Your task to perform on an android device: Open my contact list Image 0: 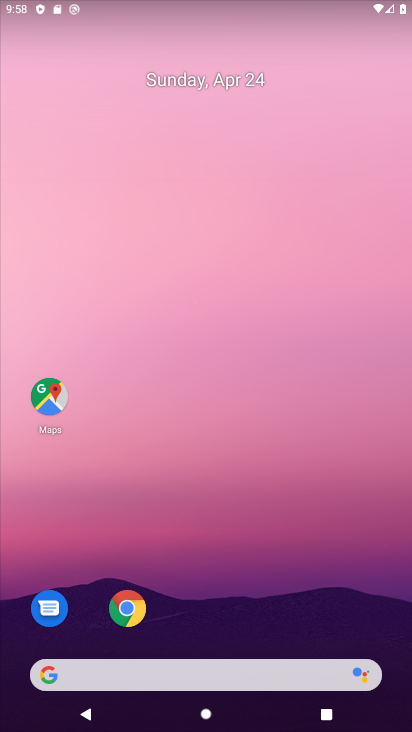
Step 0: drag from (291, 588) to (237, 25)
Your task to perform on an android device: Open my contact list Image 1: 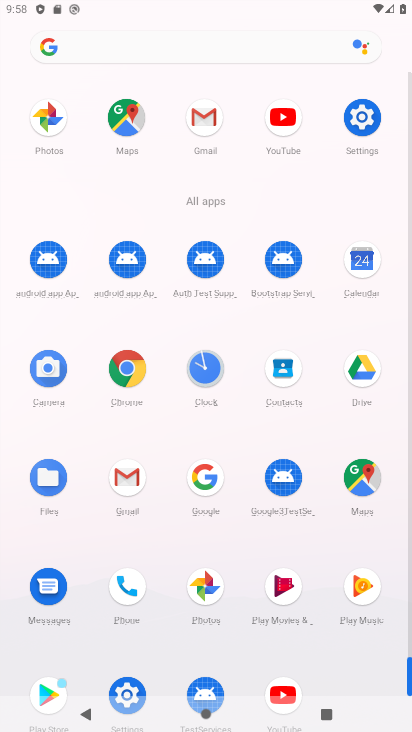
Step 1: drag from (16, 649) to (5, 328)
Your task to perform on an android device: Open my contact list Image 2: 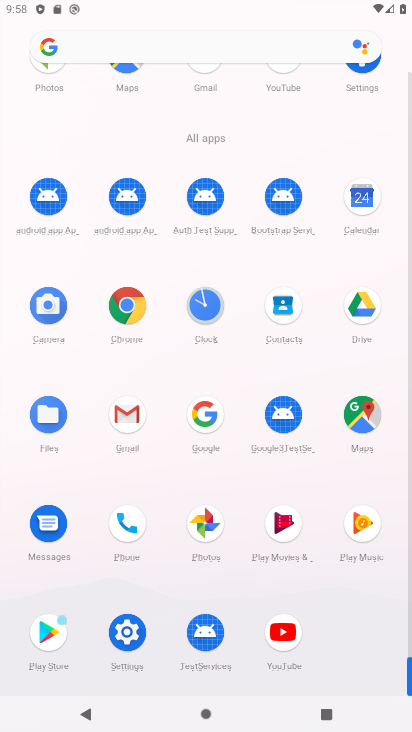
Step 2: click (281, 302)
Your task to perform on an android device: Open my contact list Image 3: 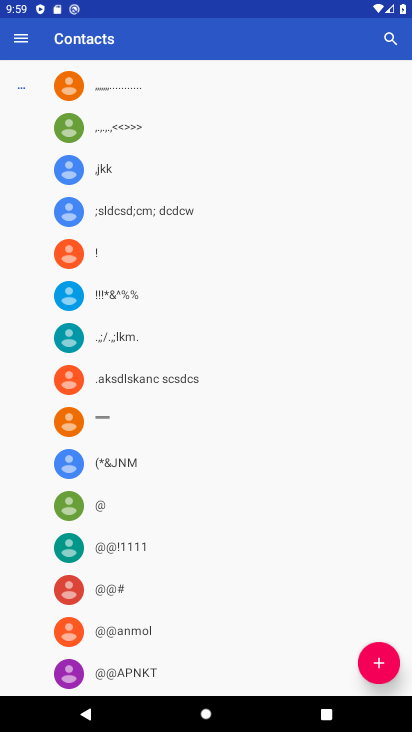
Step 3: task complete